Your task to perform on an android device: What's on my calendar tomorrow? Image 0: 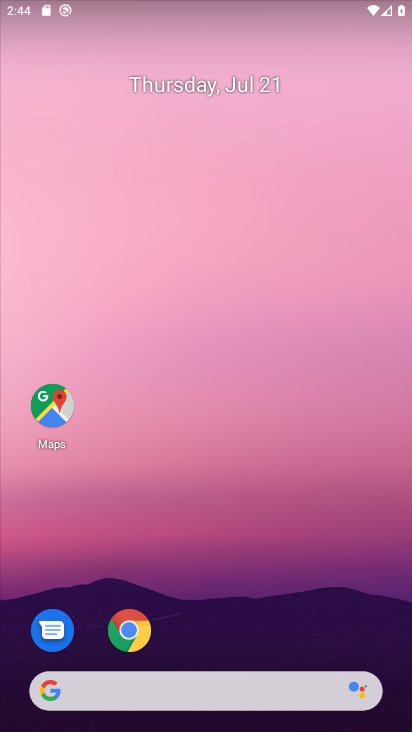
Step 0: drag from (264, 618) to (100, 52)
Your task to perform on an android device: What's on my calendar tomorrow? Image 1: 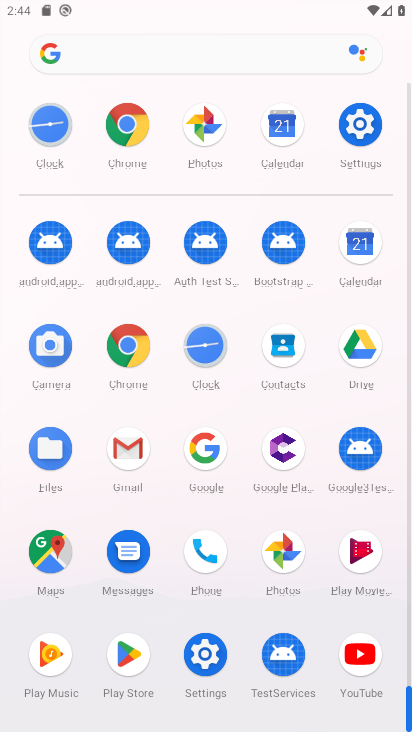
Step 1: click (358, 248)
Your task to perform on an android device: What's on my calendar tomorrow? Image 2: 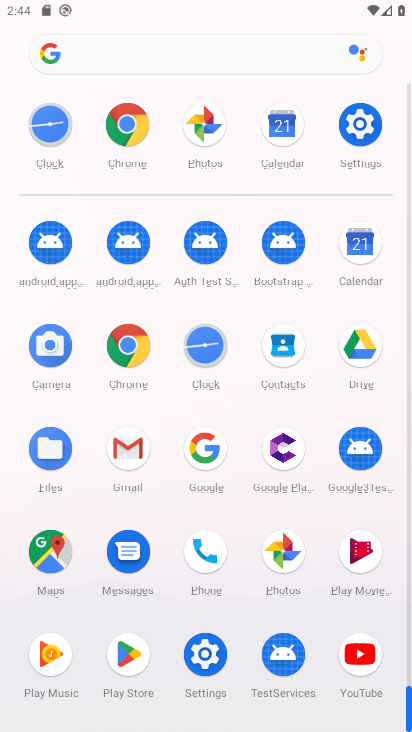
Step 2: click (350, 237)
Your task to perform on an android device: What's on my calendar tomorrow? Image 3: 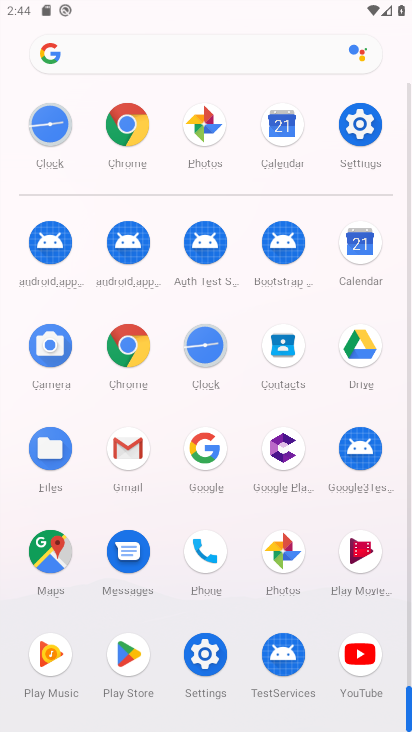
Step 3: click (350, 237)
Your task to perform on an android device: What's on my calendar tomorrow? Image 4: 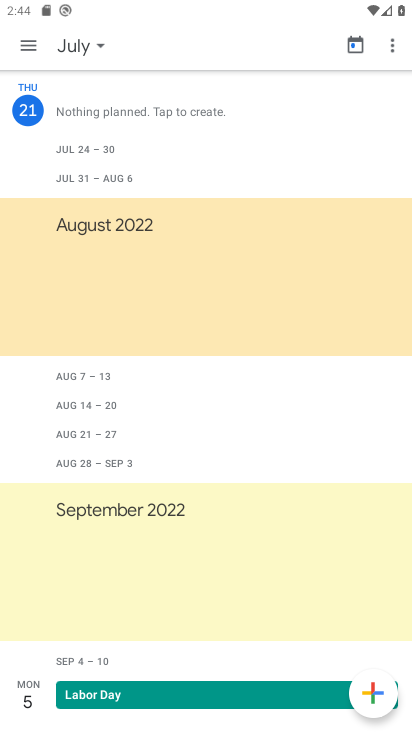
Step 4: drag from (115, 113) to (104, 625)
Your task to perform on an android device: What's on my calendar tomorrow? Image 5: 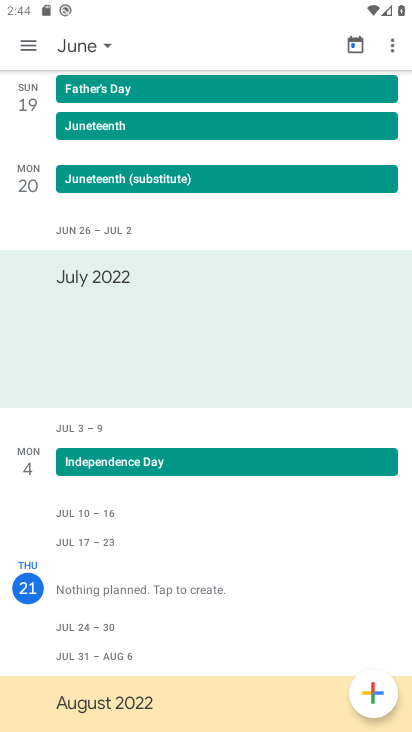
Step 5: click (107, 48)
Your task to perform on an android device: What's on my calendar tomorrow? Image 6: 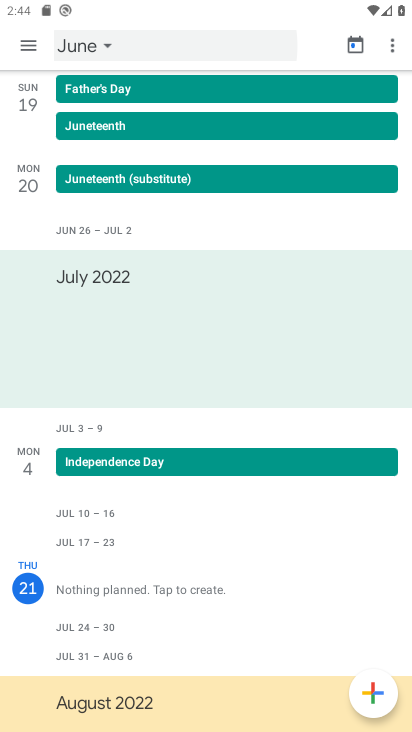
Step 6: click (106, 46)
Your task to perform on an android device: What's on my calendar tomorrow? Image 7: 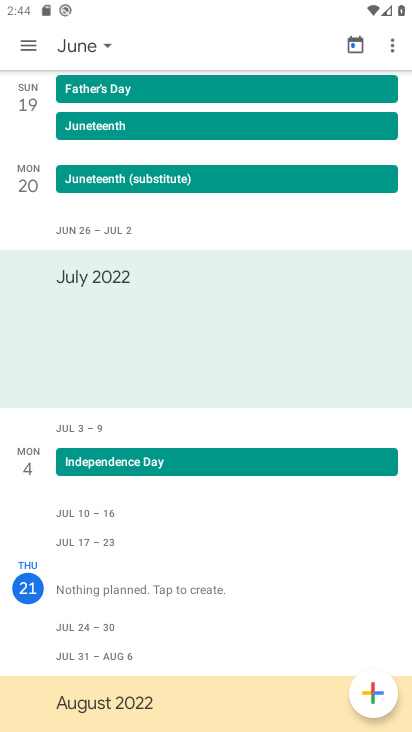
Step 7: click (106, 41)
Your task to perform on an android device: What's on my calendar tomorrow? Image 8: 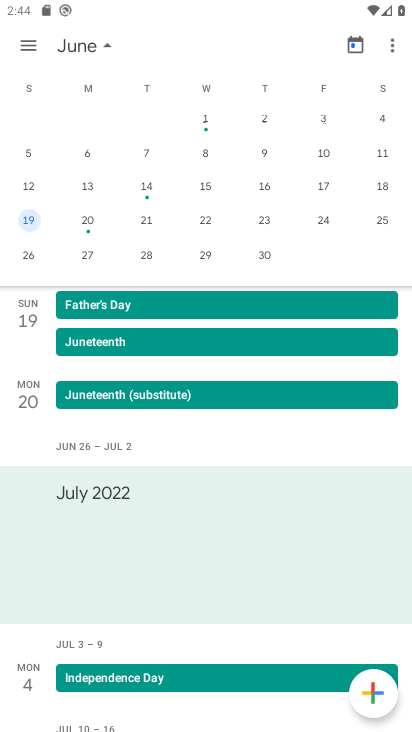
Step 8: drag from (318, 155) to (40, 246)
Your task to perform on an android device: What's on my calendar tomorrow? Image 9: 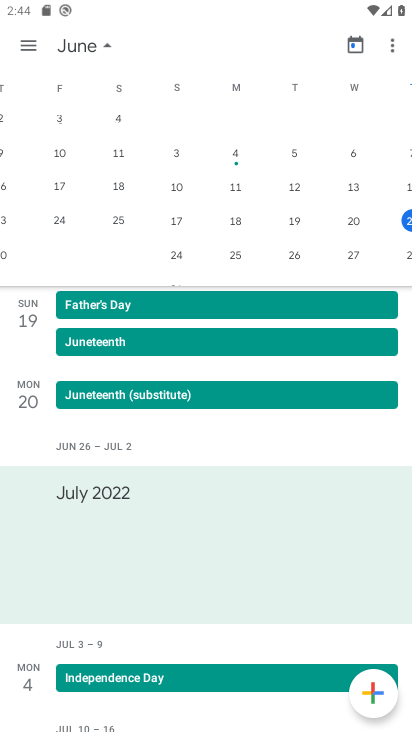
Step 9: drag from (344, 131) to (25, 145)
Your task to perform on an android device: What's on my calendar tomorrow? Image 10: 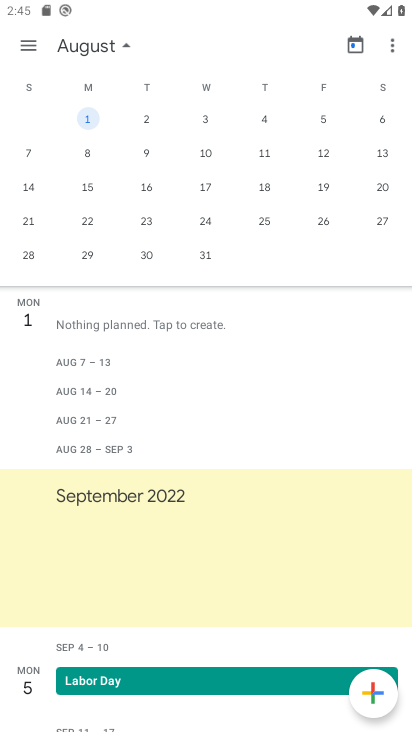
Step 10: drag from (103, 176) to (376, 175)
Your task to perform on an android device: What's on my calendar tomorrow? Image 11: 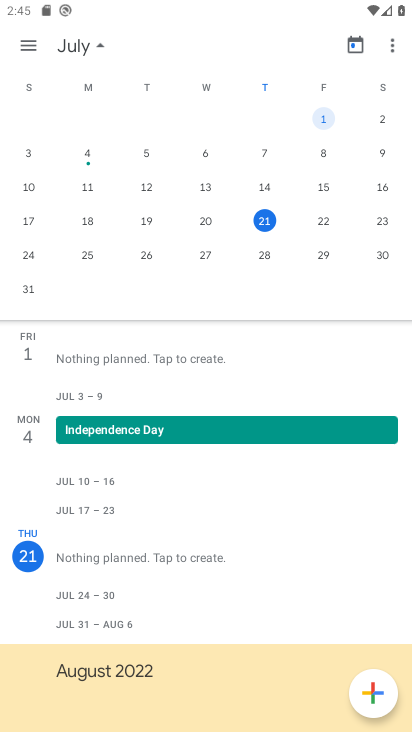
Step 11: click (346, 223)
Your task to perform on an android device: What's on my calendar tomorrow? Image 12: 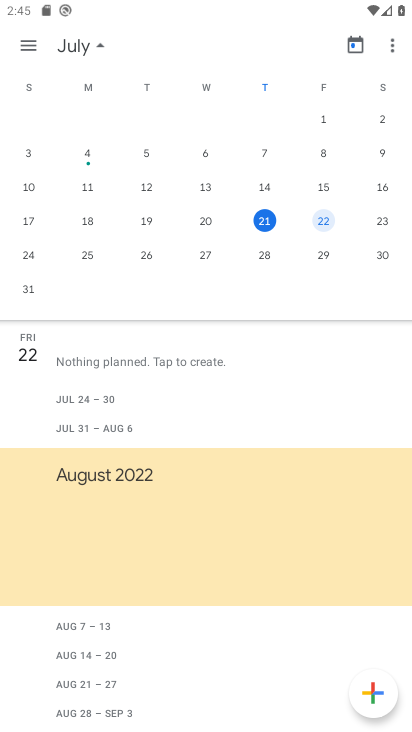
Step 12: task complete